Your task to perform on an android device: turn off airplane mode Image 0: 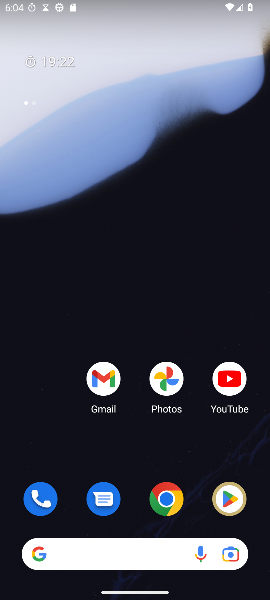
Step 0: drag from (132, 533) to (68, 19)
Your task to perform on an android device: turn off airplane mode Image 1: 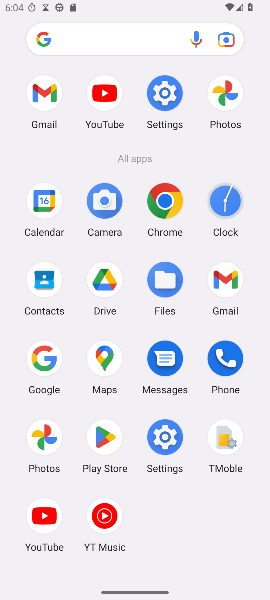
Step 1: click (168, 102)
Your task to perform on an android device: turn off airplane mode Image 2: 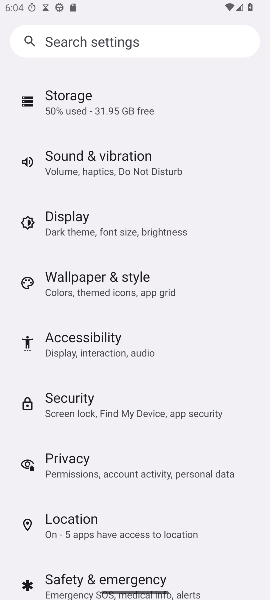
Step 2: drag from (118, 120) to (194, 478)
Your task to perform on an android device: turn off airplane mode Image 3: 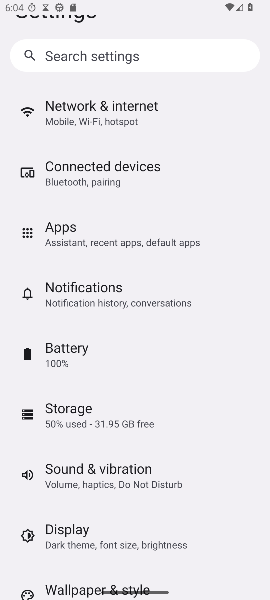
Step 3: click (108, 114)
Your task to perform on an android device: turn off airplane mode Image 4: 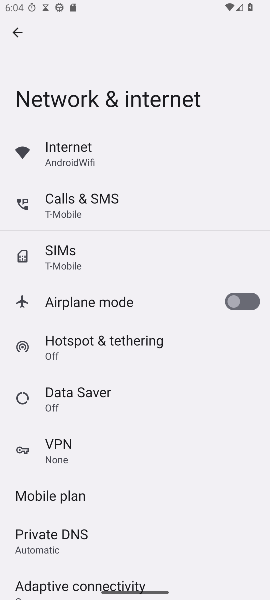
Step 4: task complete